Your task to perform on an android device: Go to privacy settings Image 0: 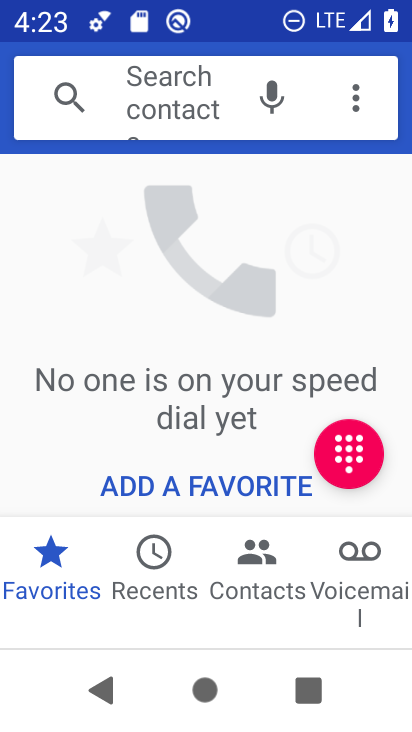
Step 0: press home button
Your task to perform on an android device: Go to privacy settings Image 1: 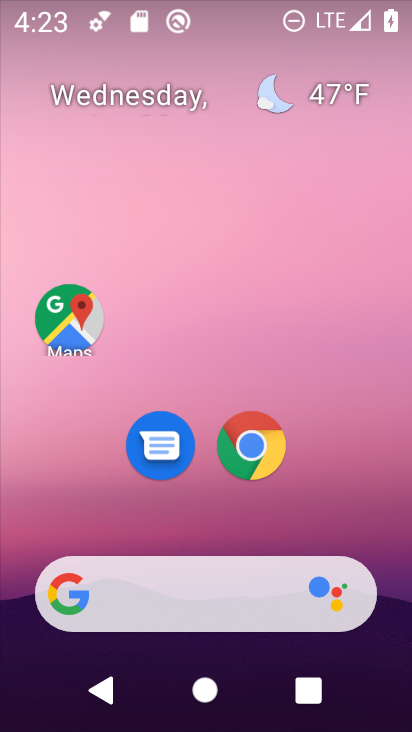
Step 1: drag from (279, 511) to (293, 72)
Your task to perform on an android device: Go to privacy settings Image 2: 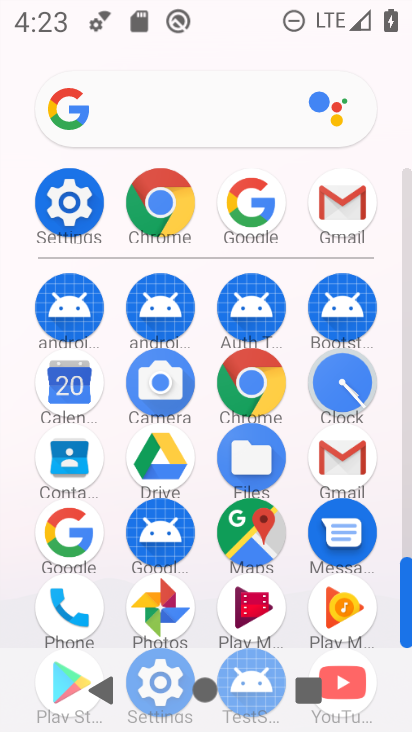
Step 2: click (66, 202)
Your task to perform on an android device: Go to privacy settings Image 3: 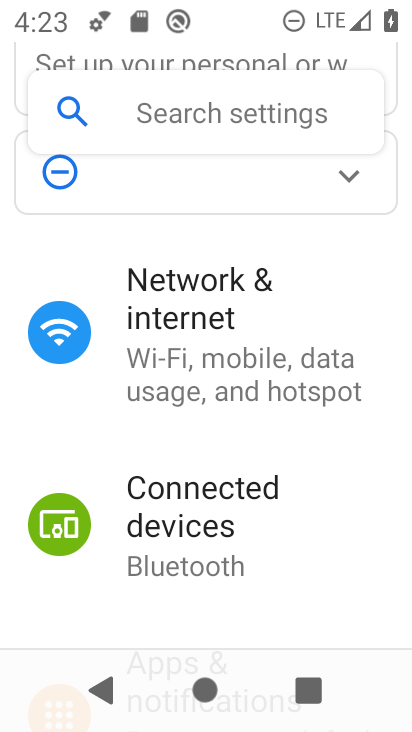
Step 3: drag from (300, 542) to (323, 294)
Your task to perform on an android device: Go to privacy settings Image 4: 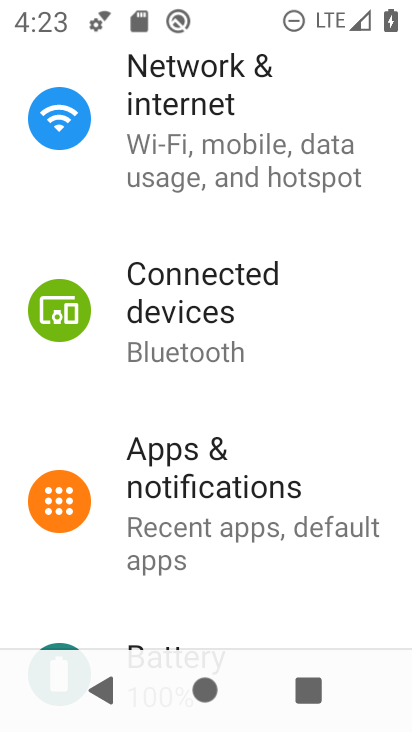
Step 4: drag from (279, 449) to (282, 204)
Your task to perform on an android device: Go to privacy settings Image 5: 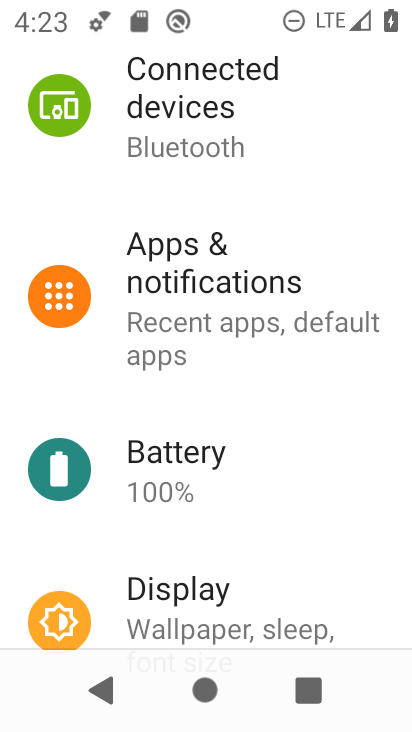
Step 5: drag from (257, 463) to (299, 199)
Your task to perform on an android device: Go to privacy settings Image 6: 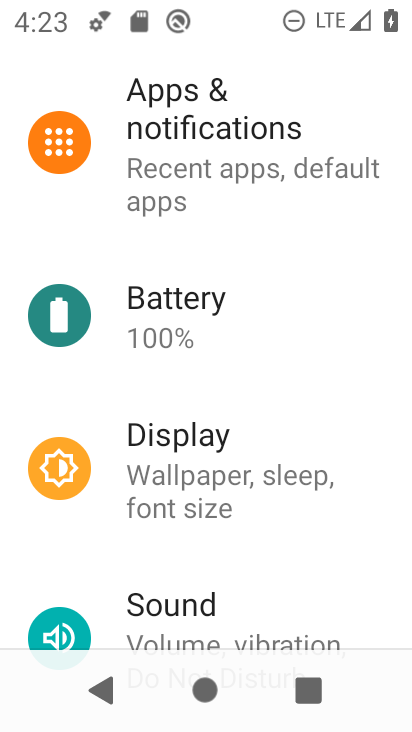
Step 6: drag from (262, 502) to (271, 295)
Your task to perform on an android device: Go to privacy settings Image 7: 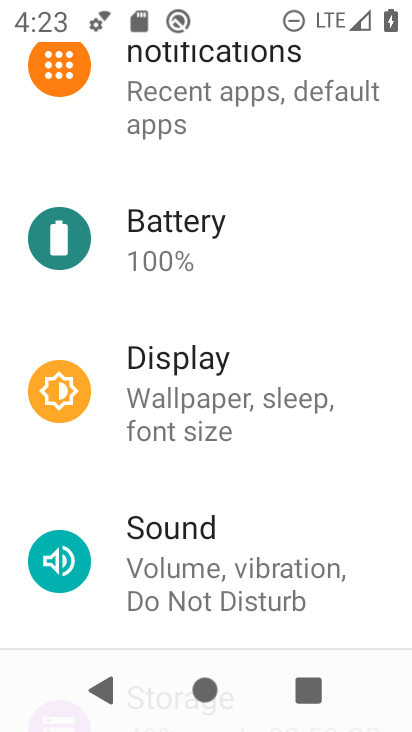
Step 7: drag from (239, 508) to (292, 253)
Your task to perform on an android device: Go to privacy settings Image 8: 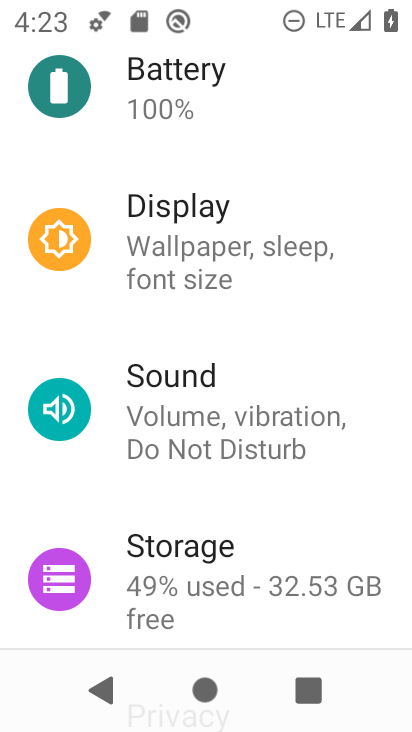
Step 8: drag from (240, 489) to (297, 242)
Your task to perform on an android device: Go to privacy settings Image 9: 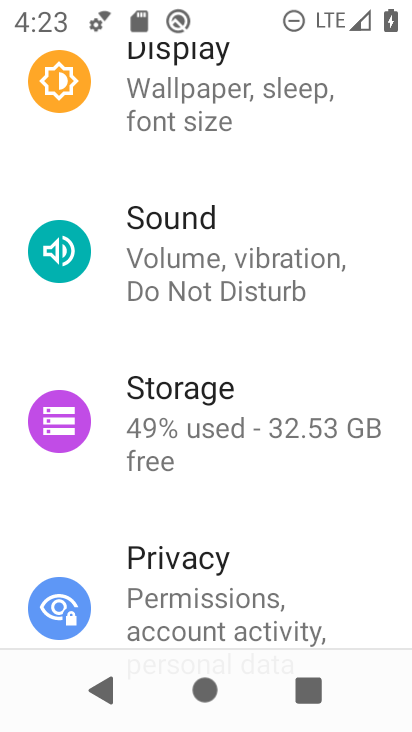
Step 9: drag from (221, 509) to (296, 261)
Your task to perform on an android device: Go to privacy settings Image 10: 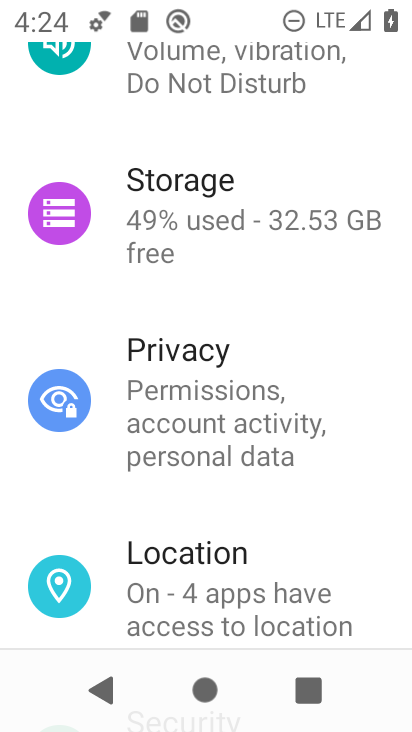
Step 10: click (227, 348)
Your task to perform on an android device: Go to privacy settings Image 11: 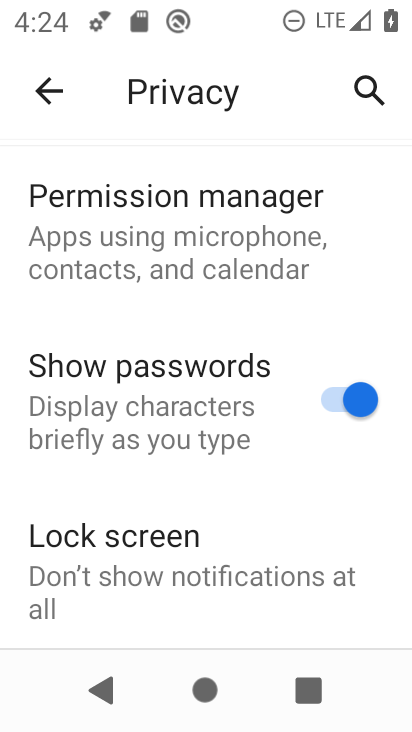
Step 11: task complete